Your task to perform on an android device: open chrome privacy settings Image 0: 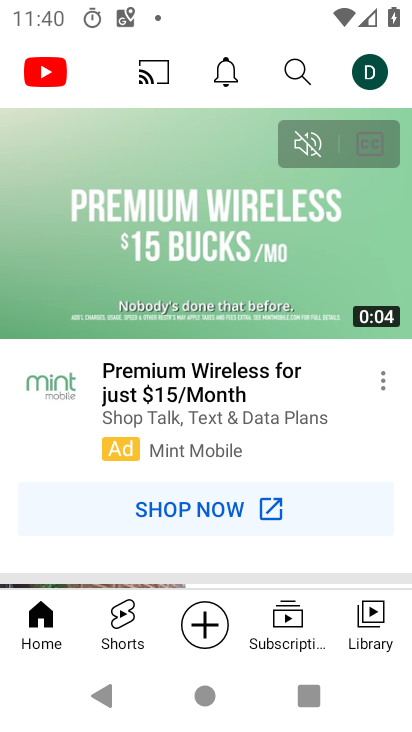
Step 0: press home button
Your task to perform on an android device: open chrome privacy settings Image 1: 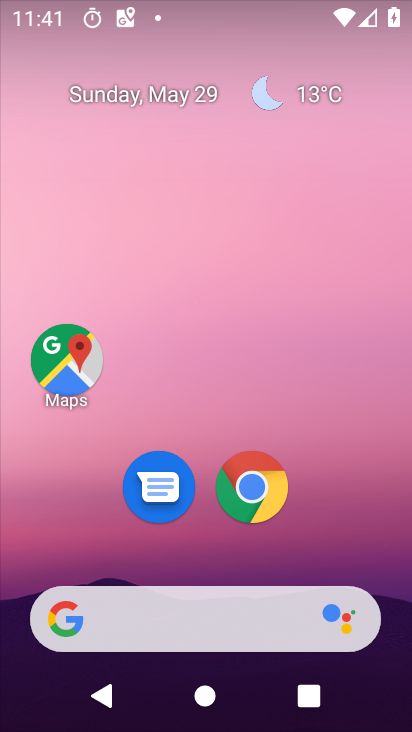
Step 1: click (253, 480)
Your task to perform on an android device: open chrome privacy settings Image 2: 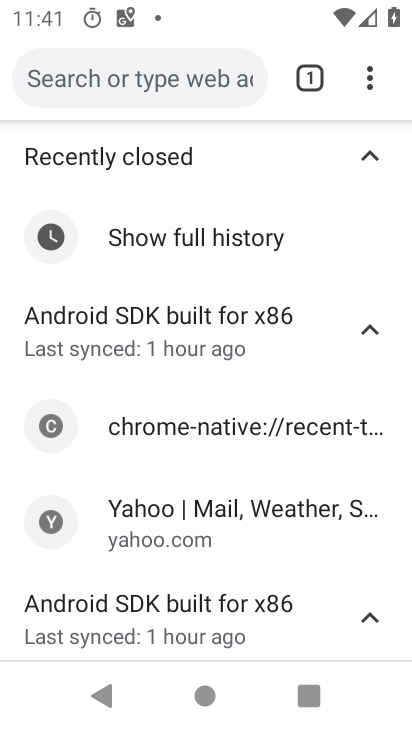
Step 2: click (377, 76)
Your task to perform on an android device: open chrome privacy settings Image 3: 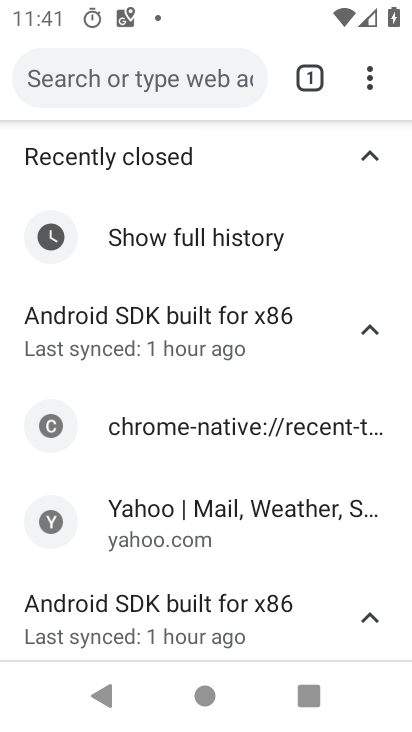
Step 3: click (366, 74)
Your task to perform on an android device: open chrome privacy settings Image 4: 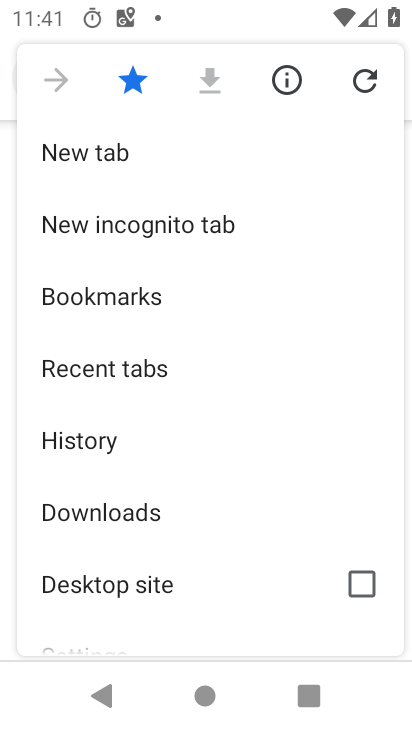
Step 4: drag from (228, 610) to (223, 274)
Your task to perform on an android device: open chrome privacy settings Image 5: 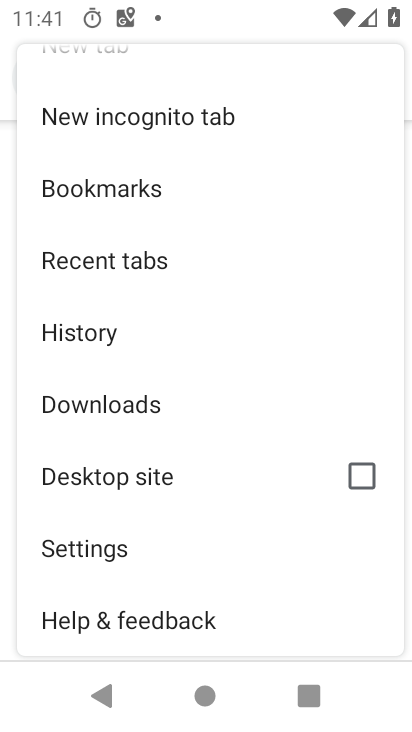
Step 5: drag from (253, 547) to (239, 280)
Your task to perform on an android device: open chrome privacy settings Image 6: 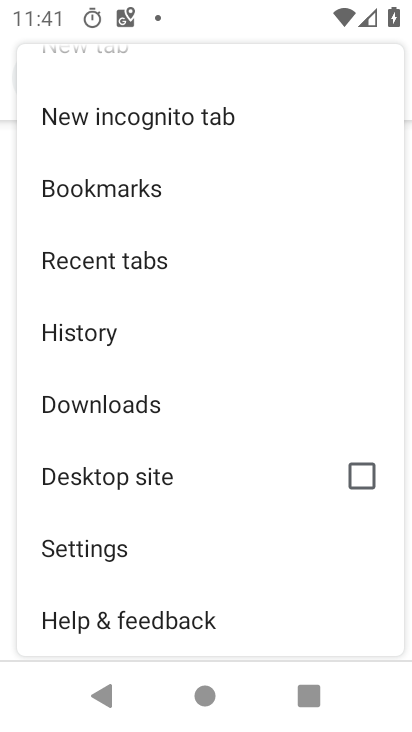
Step 6: click (94, 545)
Your task to perform on an android device: open chrome privacy settings Image 7: 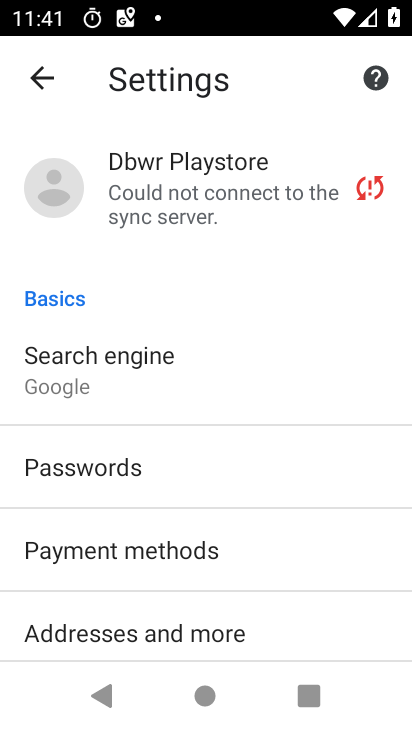
Step 7: drag from (258, 608) to (264, 265)
Your task to perform on an android device: open chrome privacy settings Image 8: 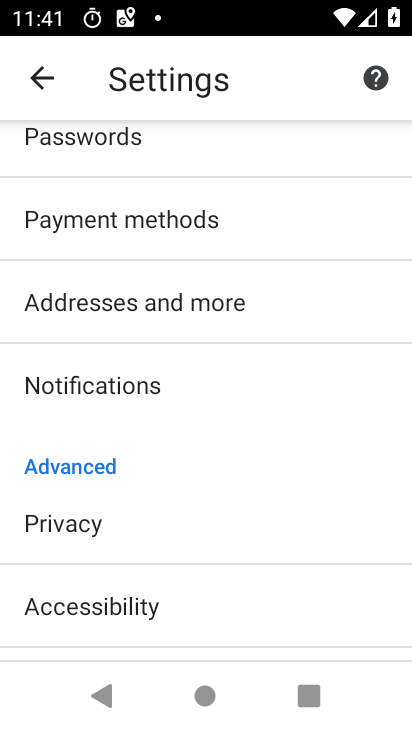
Step 8: click (46, 523)
Your task to perform on an android device: open chrome privacy settings Image 9: 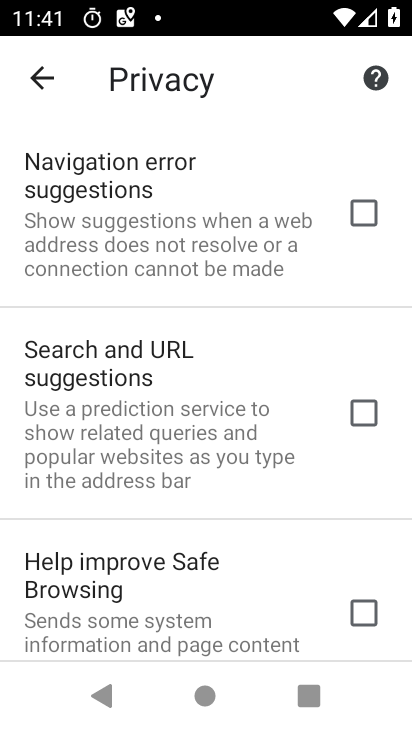
Step 9: task complete